Your task to perform on an android device: manage bookmarks in the chrome app Image 0: 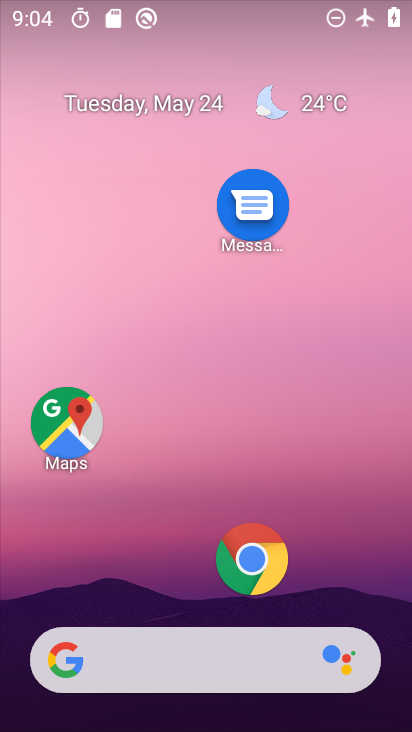
Step 0: click (270, 562)
Your task to perform on an android device: manage bookmarks in the chrome app Image 1: 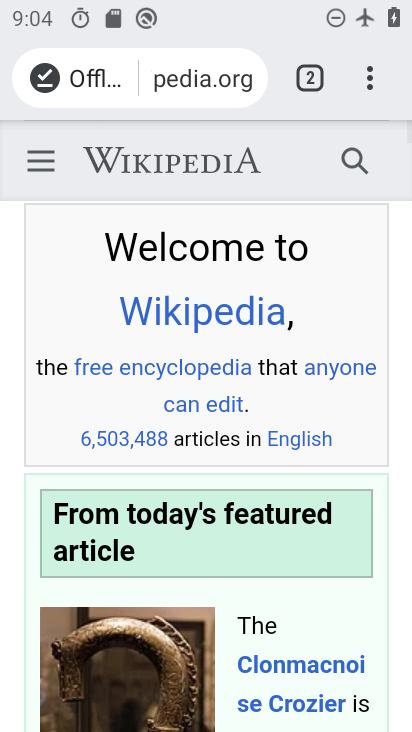
Step 1: drag from (359, 76) to (171, 285)
Your task to perform on an android device: manage bookmarks in the chrome app Image 2: 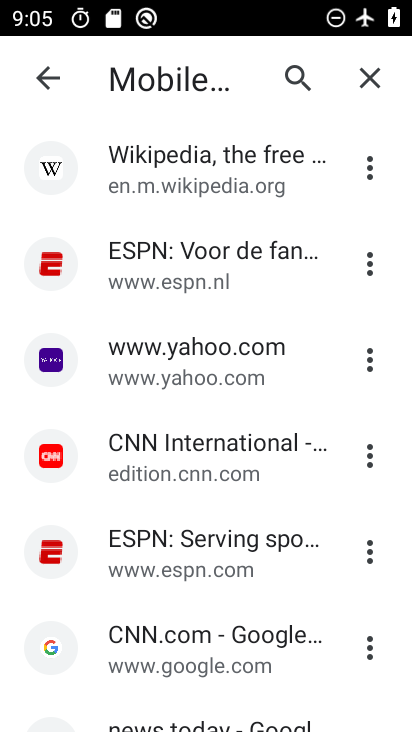
Step 2: click (372, 262)
Your task to perform on an android device: manage bookmarks in the chrome app Image 3: 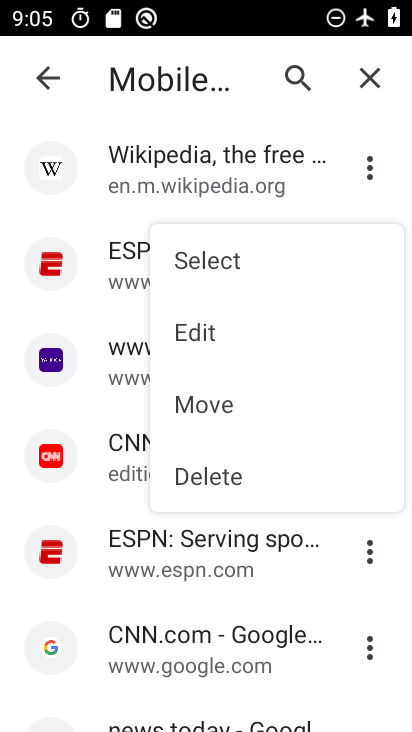
Step 3: click (221, 475)
Your task to perform on an android device: manage bookmarks in the chrome app Image 4: 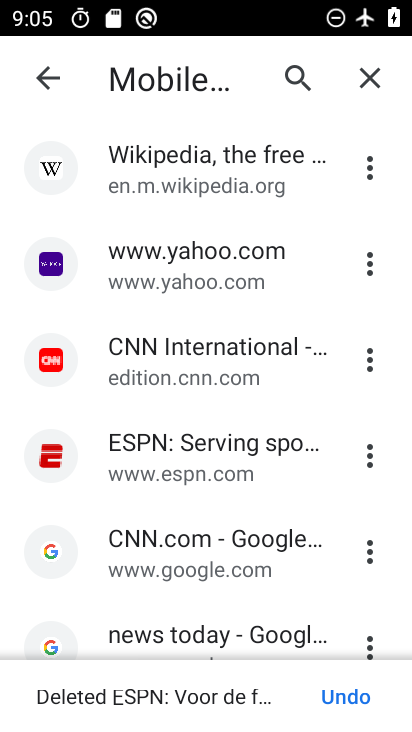
Step 4: task complete